Your task to perform on an android device: Go to Wikipedia Image 0: 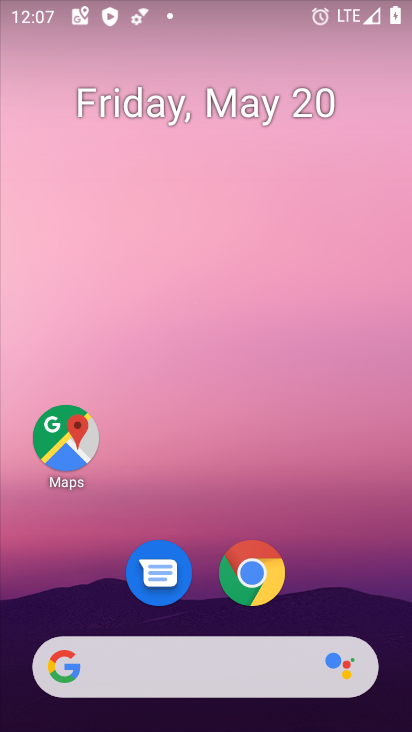
Step 0: click (254, 574)
Your task to perform on an android device: Go to Wikipedia Image 1: 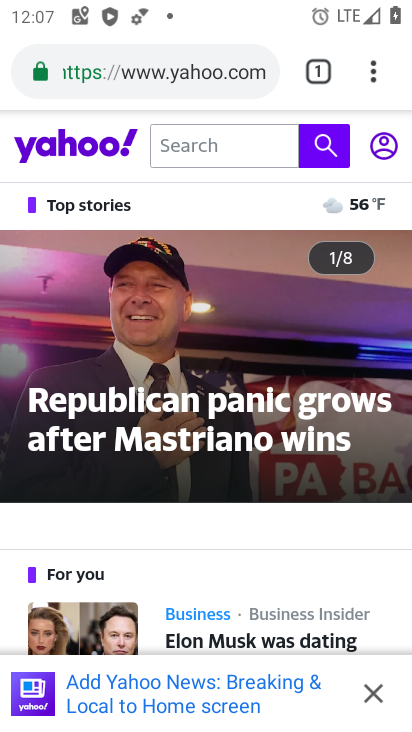
Step 1: click (165, 64)
Your task to perform on an android device: Go to Wikipedia Image 2: 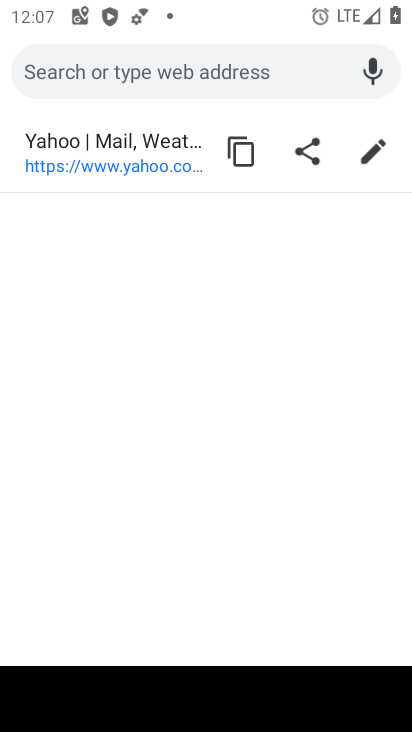
Step 2: type "wikipedia"
Your task to perform on an android device: Go to Wikipedia Image 3: 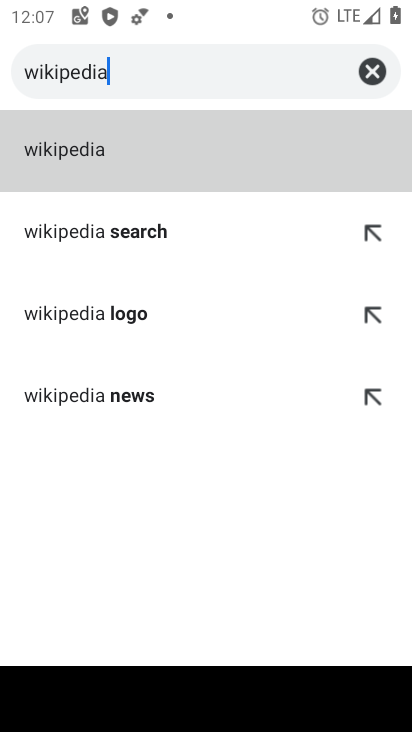
Step 3: click (105, 149)
Your task to perform on an android device: Go to Wikipedia Image 4: 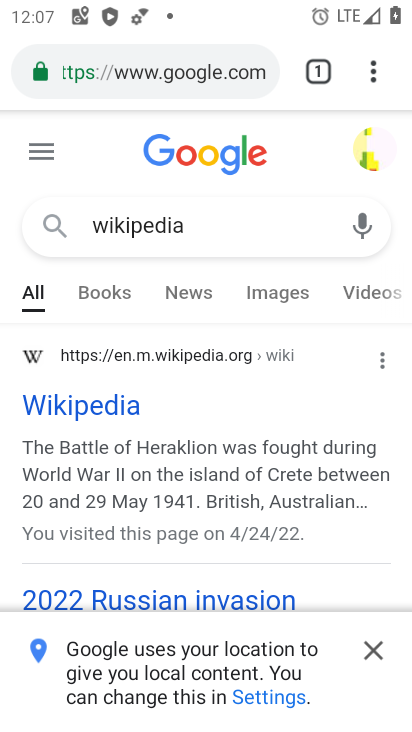
Step 4: click (374, 647)
Your task to perform on an android device: Go to Wikipedia Image 5: 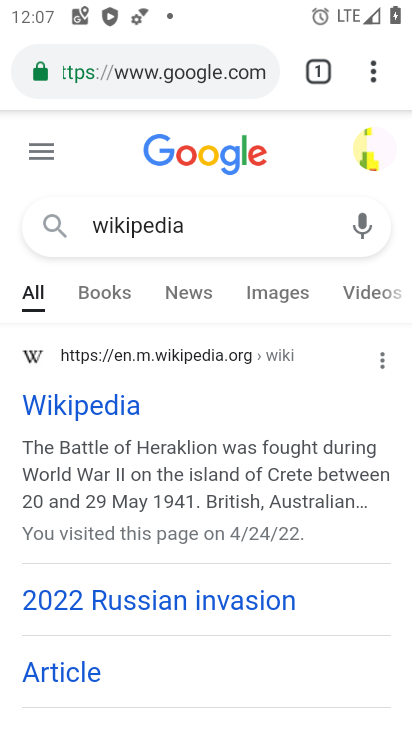
Step 5: task complete